Your task to perform on an android device: Open calendar and show me the second week of next month Image 0: 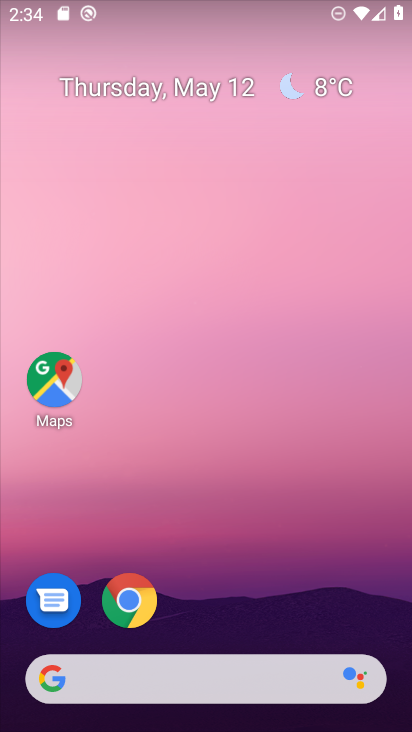
Step 0: drag from (226, 731) to (242, 247)
Your task to perform on an android device: Open calendar and show me the second week of next month Image 1: 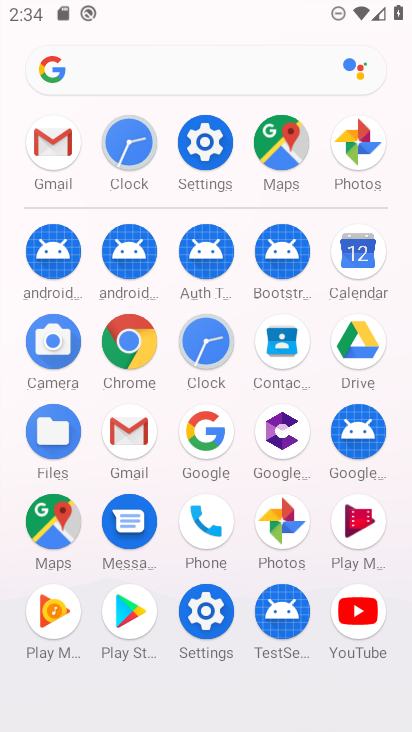
Step 1: click (359, 259)
Your task to perform on an android device: Open calendar and show me the second week of next month Image 2: 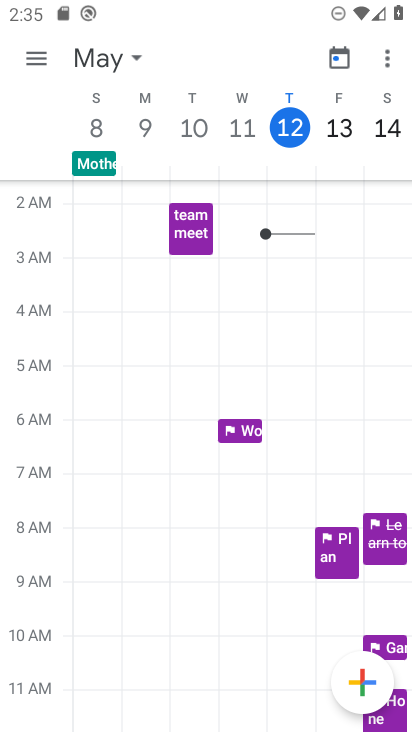
Step 2: click (108, 51)
Your task to perform on an android device: Open calendar and show me the second week of next month Image 3: 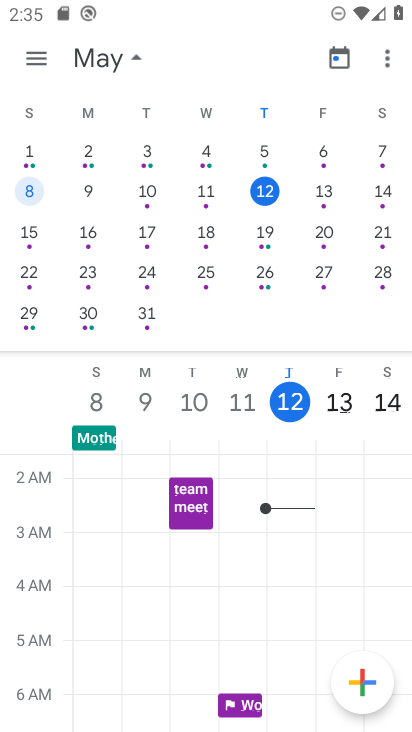
Step 3: drag from (355, 221) to (5, 200)
Your task to perform on an android device: Open calendar and show me the second week of next month Image 4: 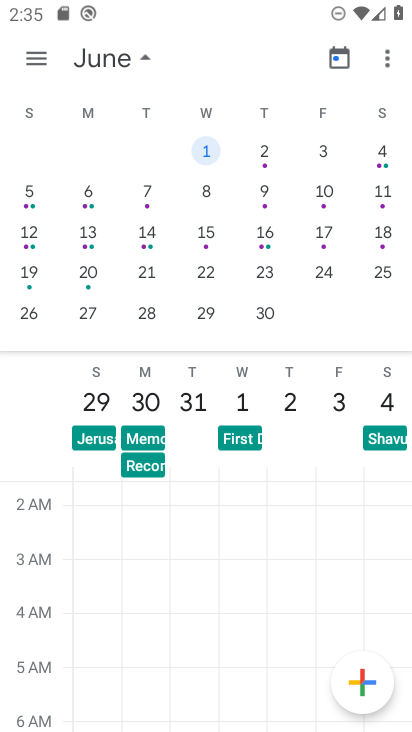
Step 4: click (88, 228)
Your task to perform on an android device: Open calendar and show me the second week of next month Image 5: 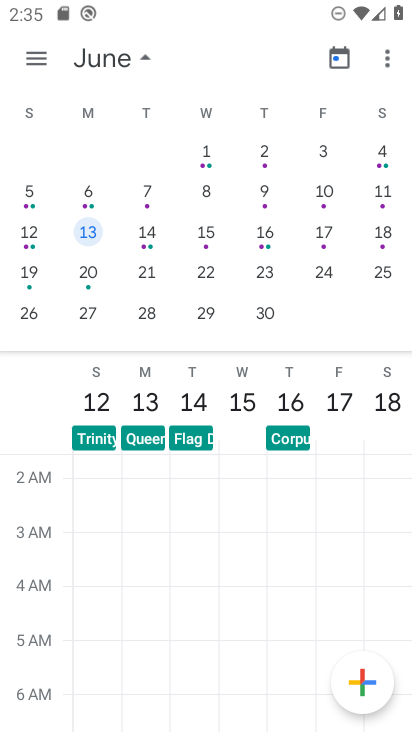
Step 5: task complete